Your task to perform on an android device: See recent photos Image 0: 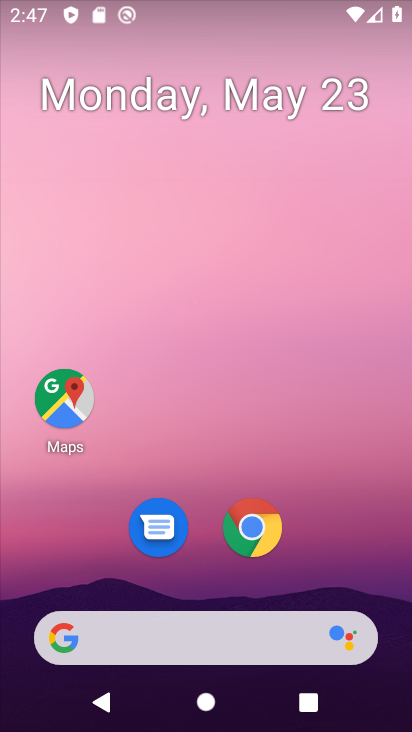
Step 0: drag from (273, 634) to (241, 176)
Your task to perform on an android device: See recent photos Image 1: 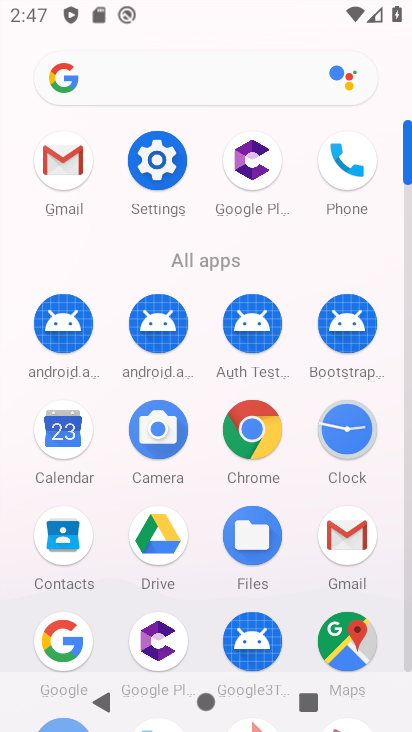
Step 1: drag from (210, 559) to (153, 381)
Your task to perform on an android device: See recent photos Image 2: 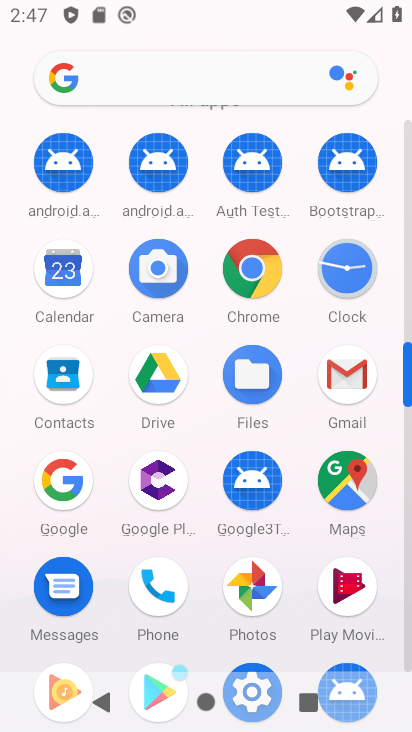
Step 2: click (248, 576)
Your task to perform on an android device: See recent photos Image 3: 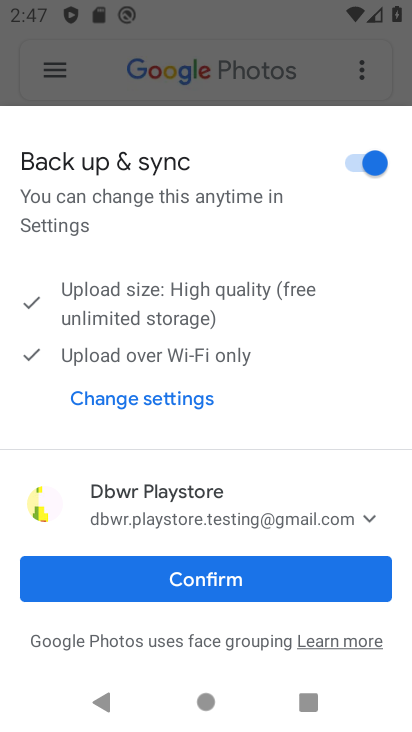
Step 3: click (246, 576)
Your task to perform on an android device: See recent photos Image 4: 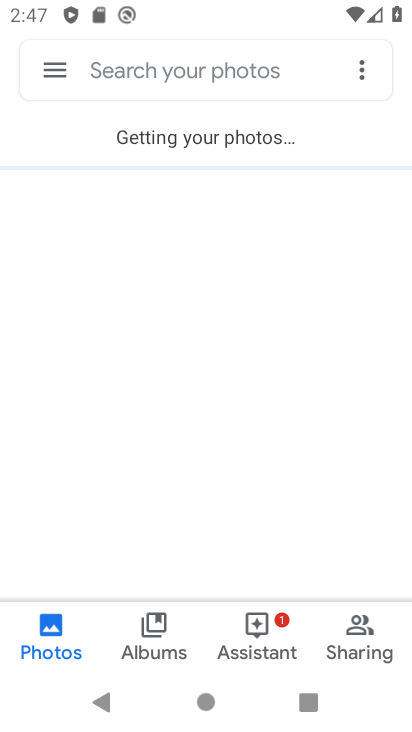
Step 4: click (155, 617)
Your task to perform on an android device: See recent photos Image 5: 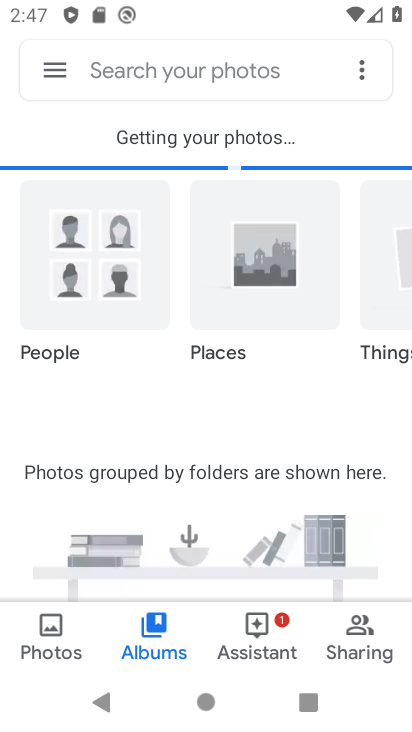
Step 5: click (42, 632)
Your task to perform on an android device: See recent photos Image 6: 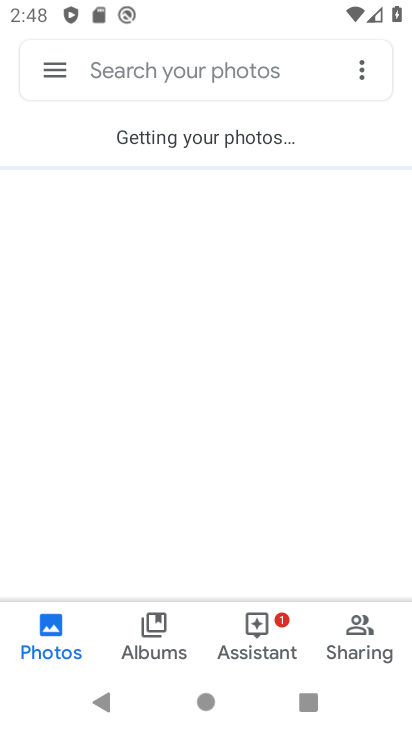
Step 6: click (140, 643)
Your task to perform on an android device: See recent photos Image 7: 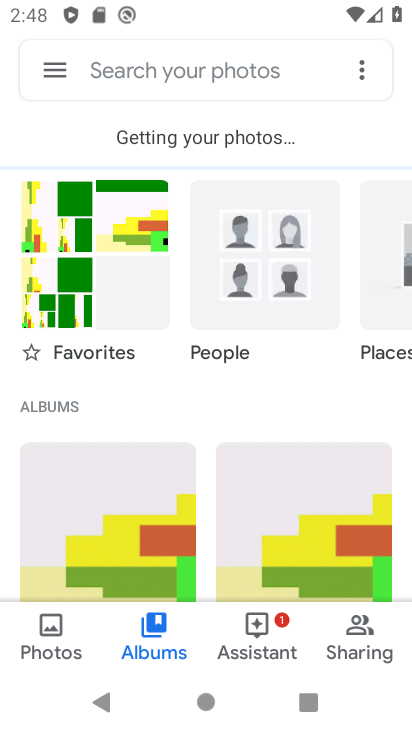
Step 7: click (56, 634)
Your task to perform on an android device: See recent photos Image 8: 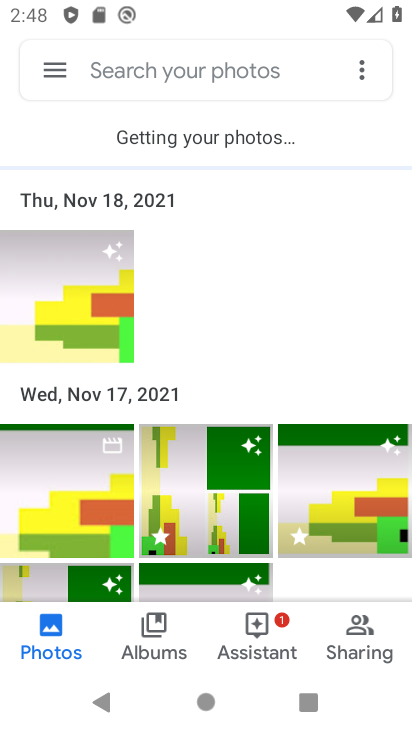
Step 8: task complete